Your task to perform on an android device: Go to location settings Image 0: 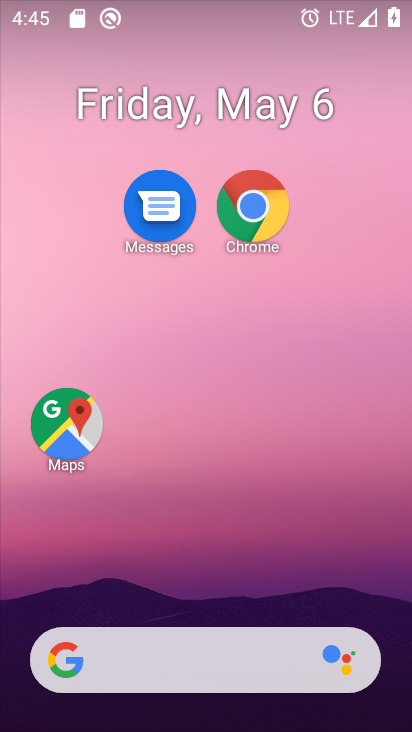
Step 0: drag from (149, 629) to (190, 286)
Your task to perform on an android device: Go to location settings Image 1: 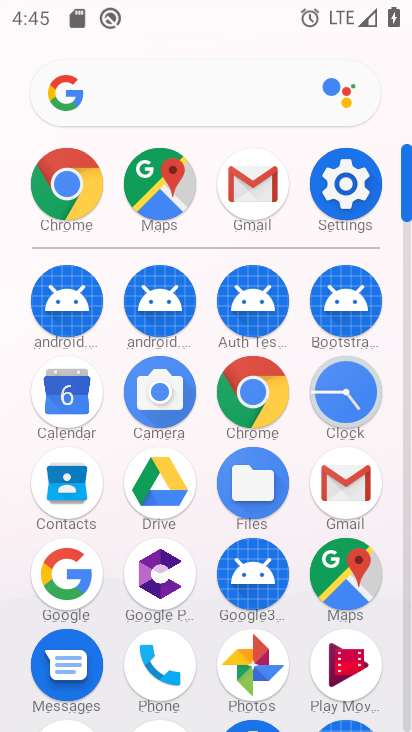
Step 1: click (326, 190)
Your task to perform on an android device: Go to location settings Image 2: 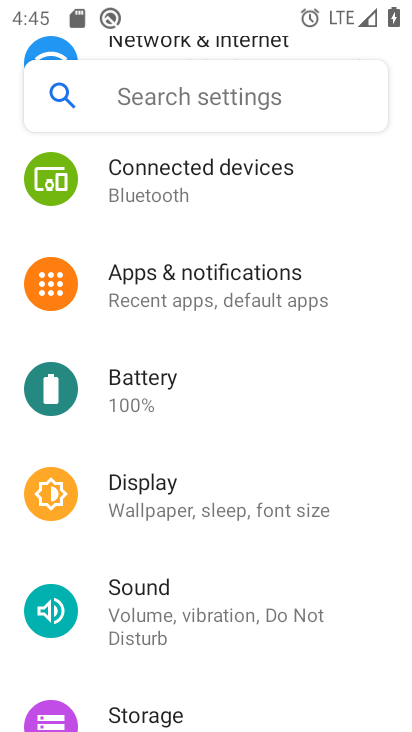
Step 2: drag from (172, 681) to (156, 368)
Your task to perform on an android device: Go to location settings Image 3: 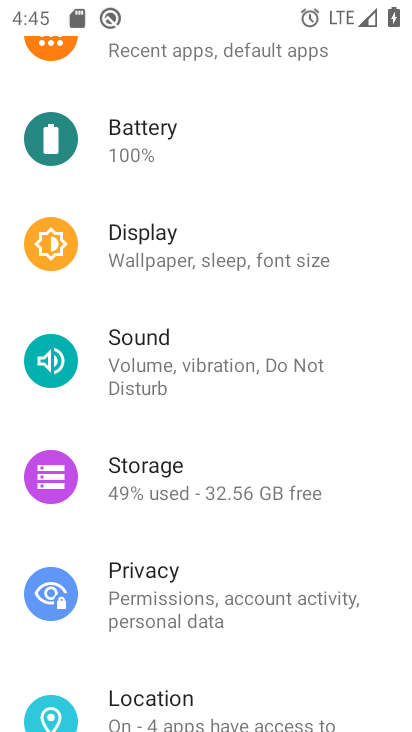
Step 3: click (179, 713)
Your task to perform on an android device: Go to location settings Image 4: 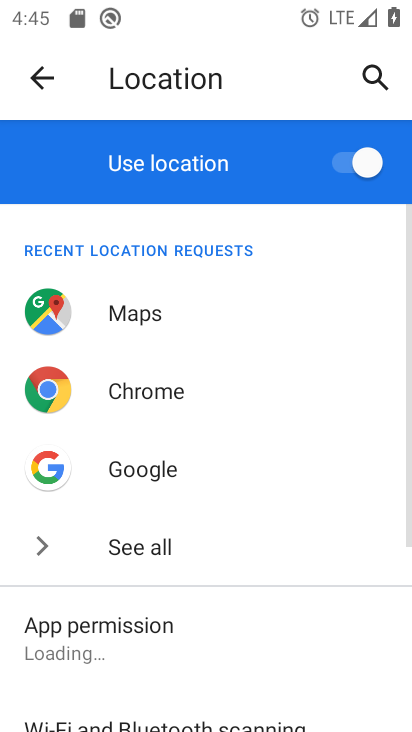
Step 4: task complete